Your task to perform on an android device: Search for seafood restaurants on Google Maps Image 0: 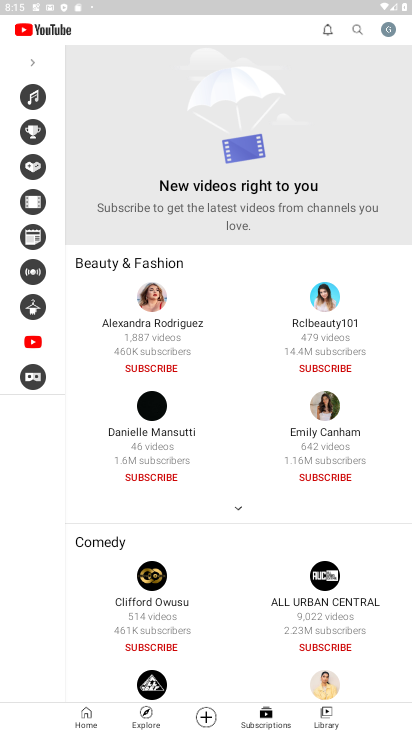
Step 0: press home button
Your task to perform on an android device: Search for seafood restaurants on Google Maps Image 1: 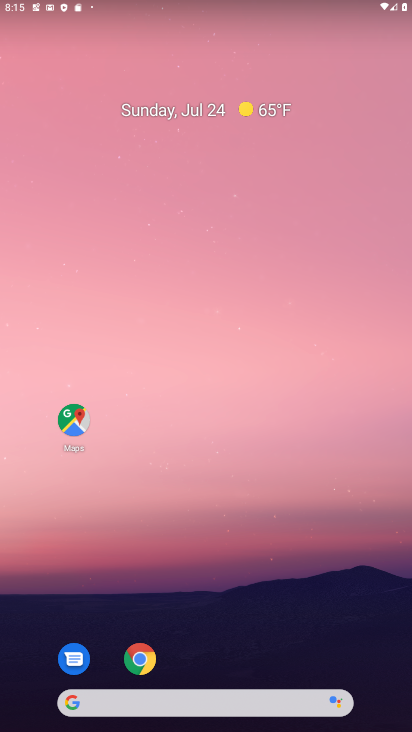
Step 1: click (71, 424)
Your task to perform on an android device: Search for seafood restaurants on Google Maps Image 2: 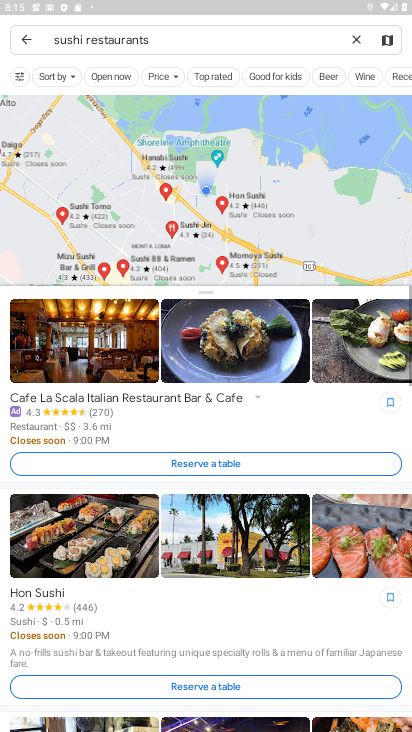
Step 2: click (357, 40)
Your task to perform on an android device: Search for seafood restaurants on Google Maps Image 3: 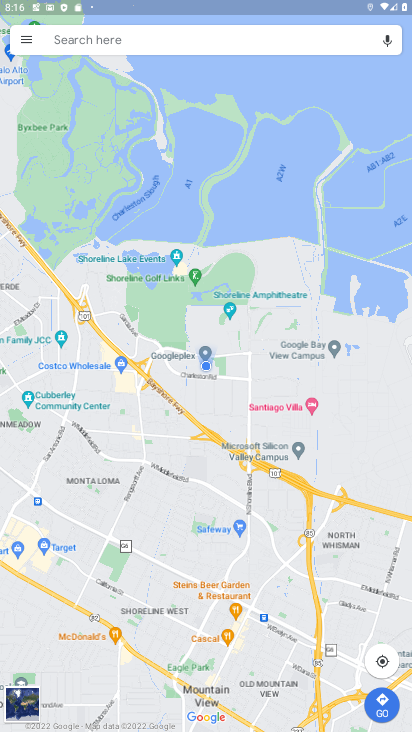
Step 3: type "seafood restaurants"
Your task to perform on an android device: Search for seafood restaurants on Google Maps Image 4: 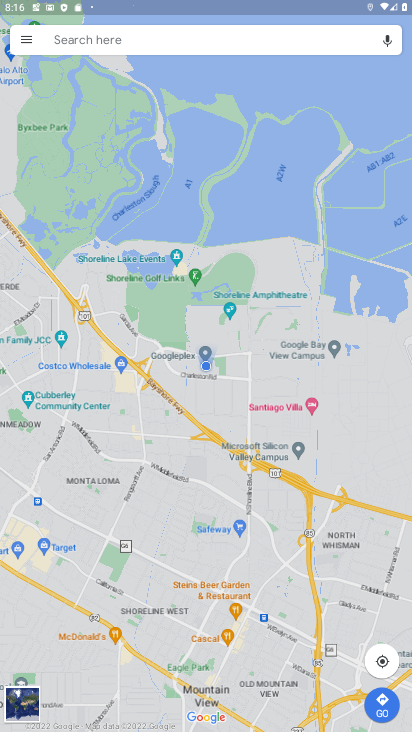
Step 4: click (94, 42)
Your task to perform on an android device: Search for seafood restaurants on Google Maps Image 5: 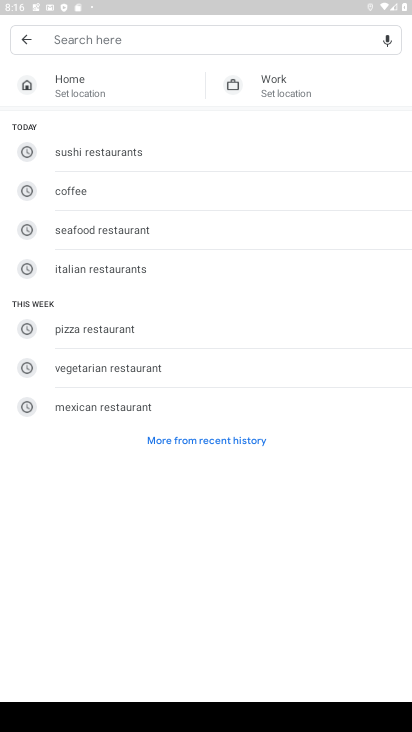
Step 5: type "seafood restaurants"
Your task to perform on an android device: Search for seafood restaurants on Google Maps Image 6: 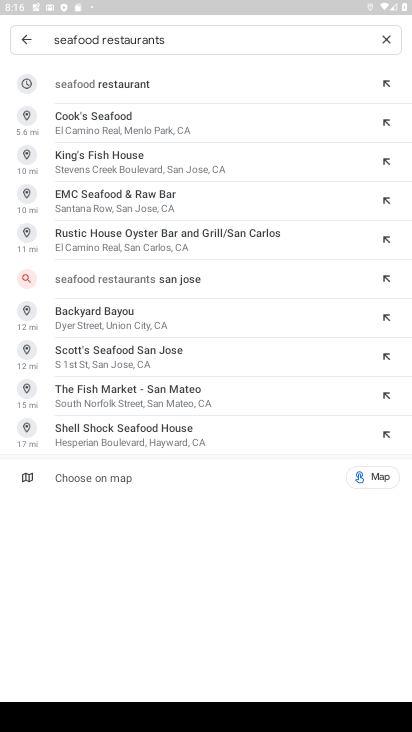
Step 6: click (100, 89)
Your task to perform on an android device: Search for seafood restaurants on Google Maps Image 7: 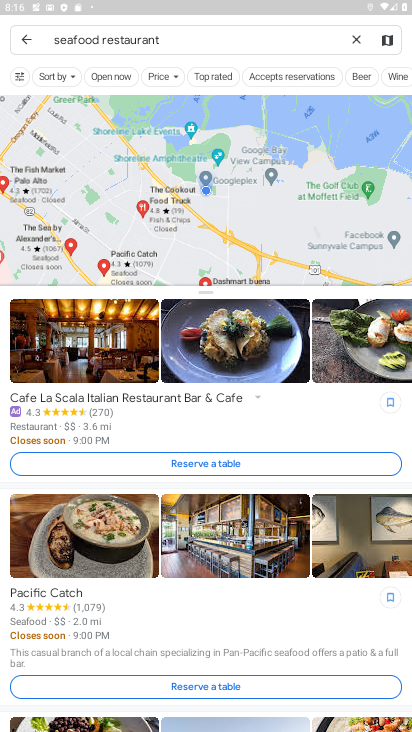
Step 7: task complete